Your task to perform on an android device: check google app version Image 0: 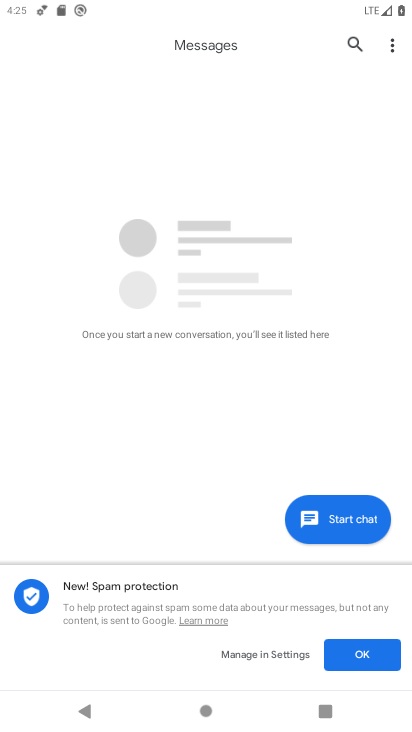
Step 0: press home button
Your task to perform on an android device: check google app version Image 1: 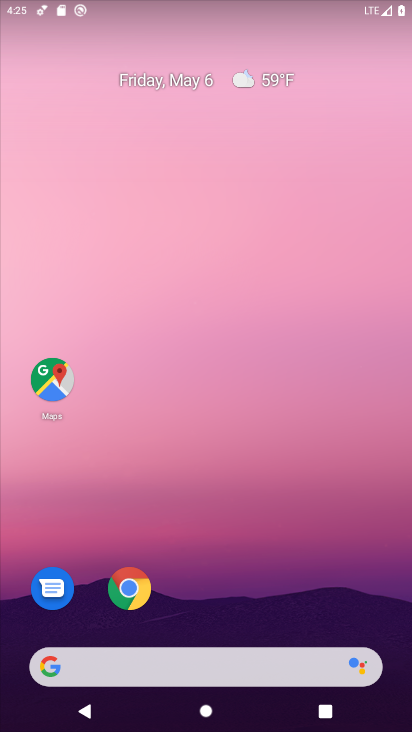
Step 1: drag from (171, 728) to (171, 192)
Your task to perform on an android device: check google app version Image 2: 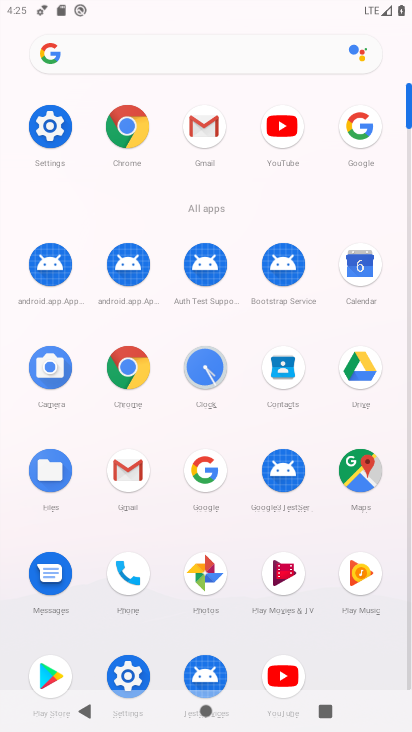
Step 2: click (210, 469)
Your task to perform on an android device: check google app version Image 3: 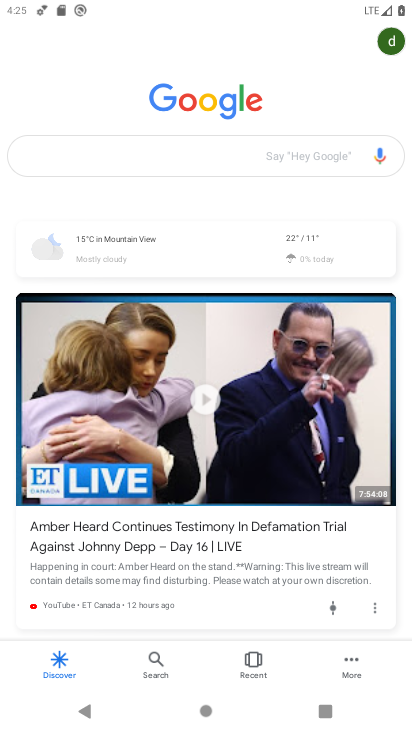
Step 3: click (348, 656)
Your task to perform on an android device: check google app version Image 4: 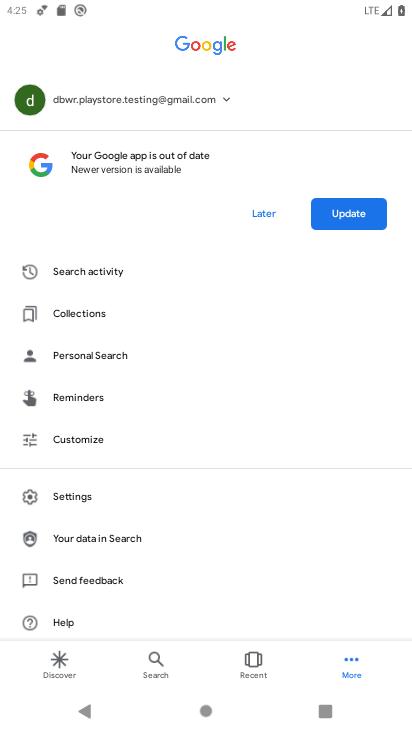
Step 4: click (76, 493)
Your task to perform on an android device: check google app version Image 5: 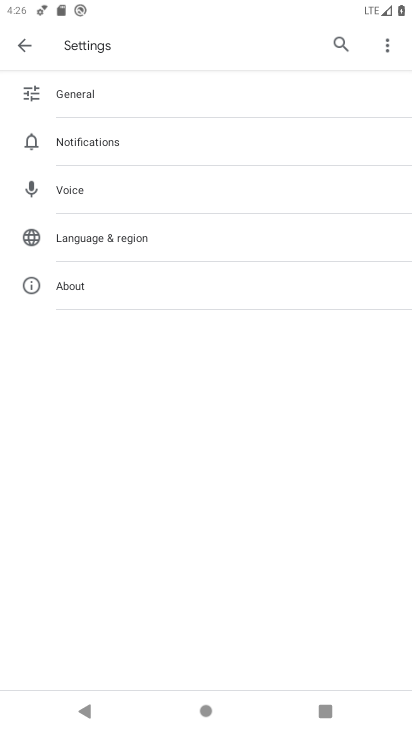
Step 5: click (63, 493)
Your task to perform on an android device: check google app version Image 6: 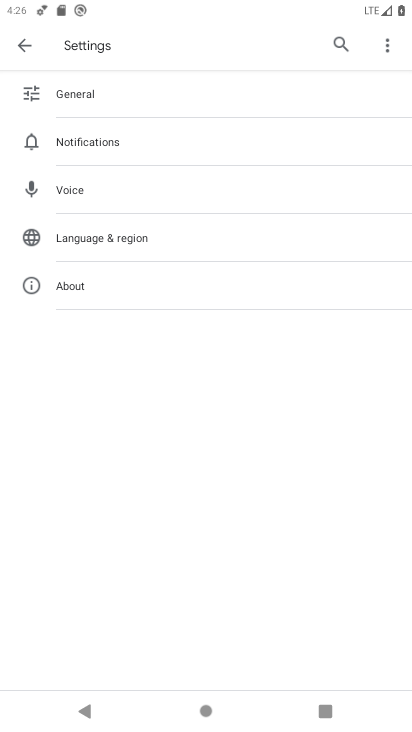
Step 6: click (74, 283)
Your task to perform on an android device: check google app version Image 7: 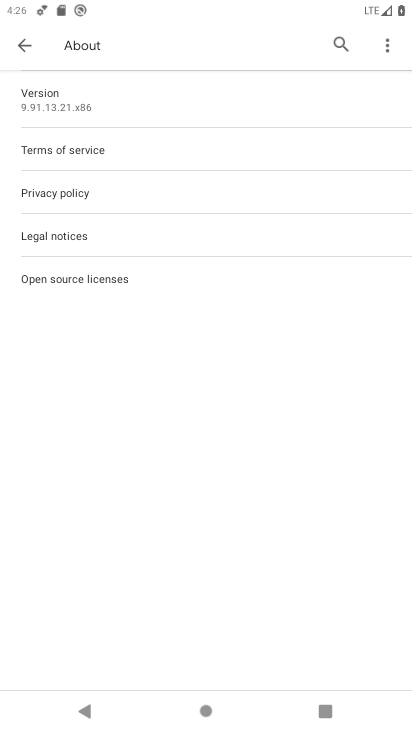
Step 7: task complete